Your task to perform on an android device: Go to Google Image 0: 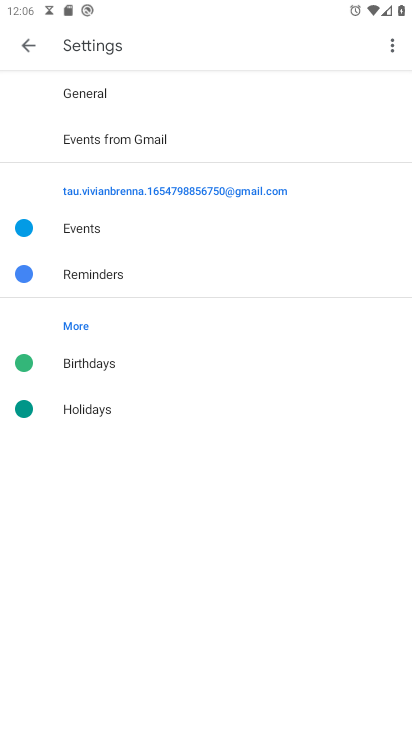
Step 0: press home button
Your task to perform on an android device: Go to Google Image 1: 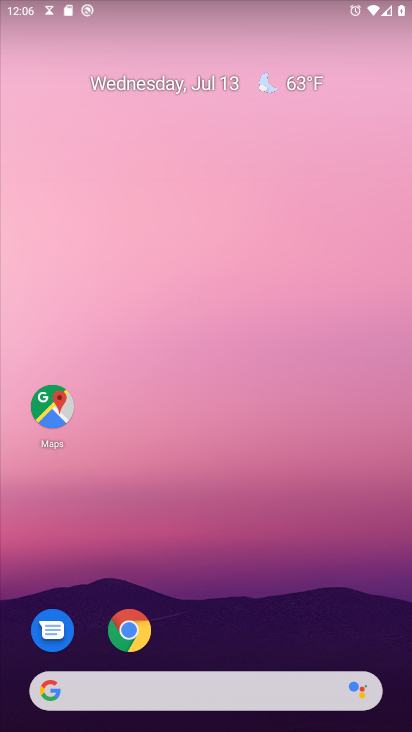
Step 1: drag from (191, 676) to (150, 113)
Your task to perform on an android device: Go to Google Image 2: 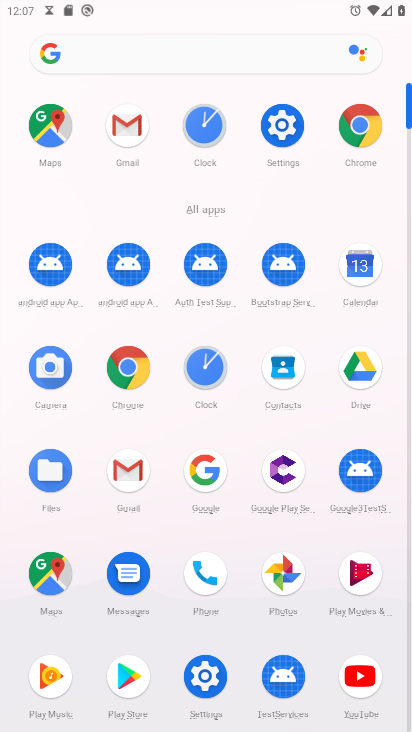
Step 2: click (207, 487)
Your task to perform on an android device: Go to Google Image 3: 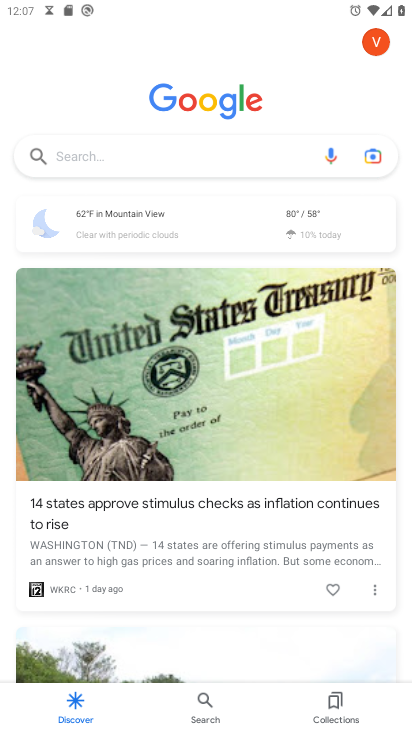
Step 3: task complete